Your task to perform on an android device: turn on javascript in the chrome app Image 0: 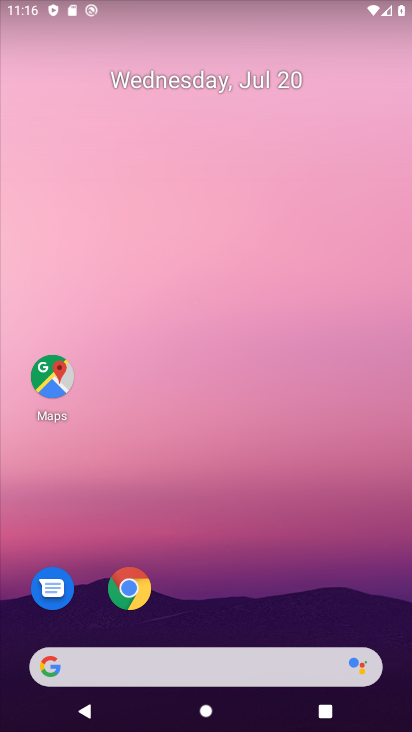
Step 0: press home button
Your task to perform on an android device: turn on javascript in the chrome app Image 1: 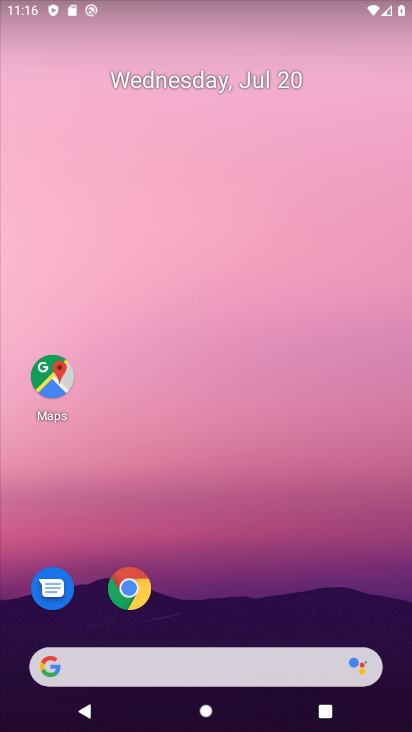
Step 1: press home button
Your task to perform on an android device: turn on javascript in the chrome app Image 2: 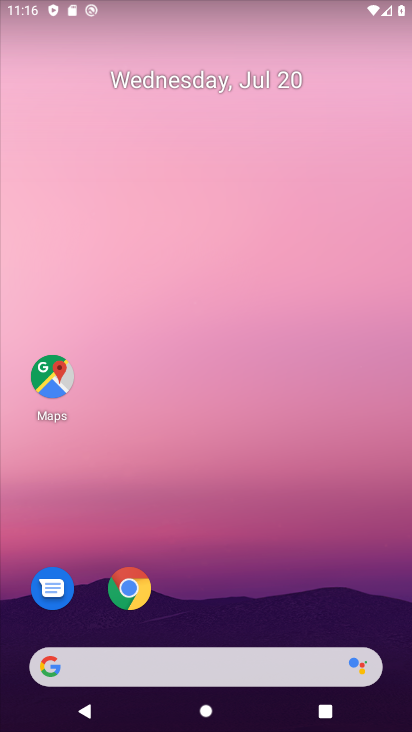
Step 2: click (131, 585)
Your task to perform on an android device: turn on javascript in the chrome app Image 3: 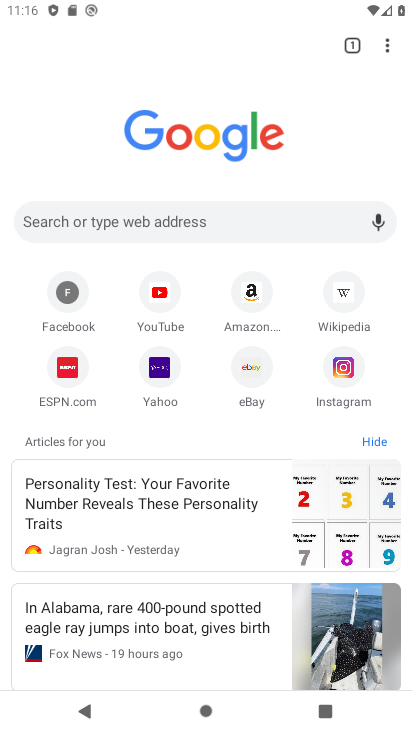
Step 3: drag from (387, 47) to (249, 382)
Your task to perform on an android device: turn on javascript in the chrome app Image 4: 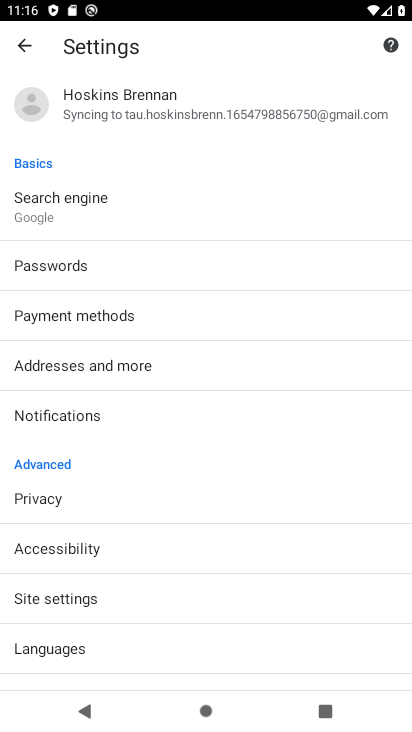
Step 4: click (64, 595)
Your task to perform on an android device: turn on javascript in the chrome app Image 5: 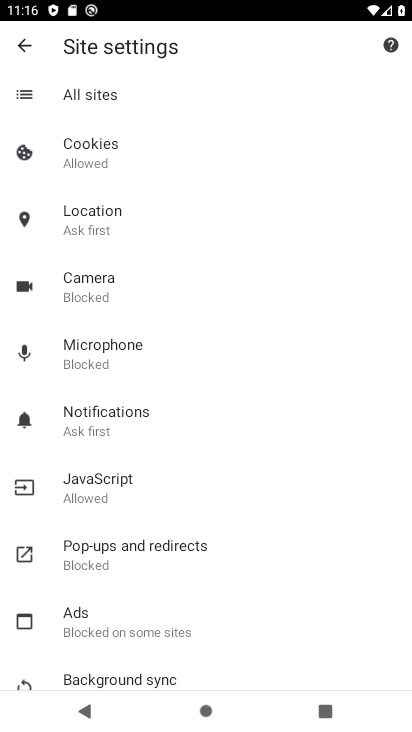
Step 5: click (80, 493)
Your task to perform on an android device: turn on javascript in the chrome app Image 6: 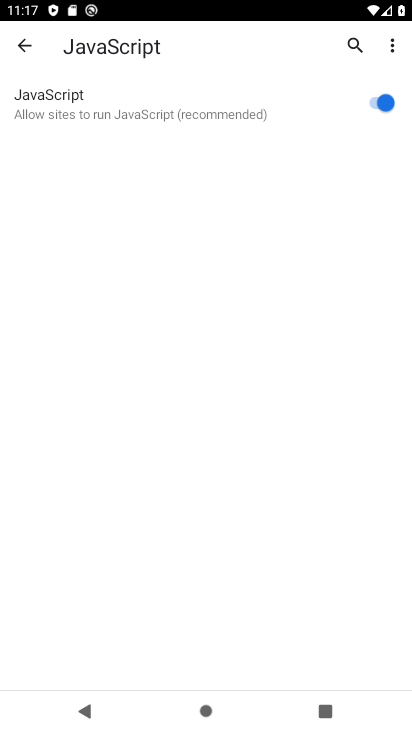
Step 6: task complete